Your task to perform on an android device: Go to internet settings Image 0: 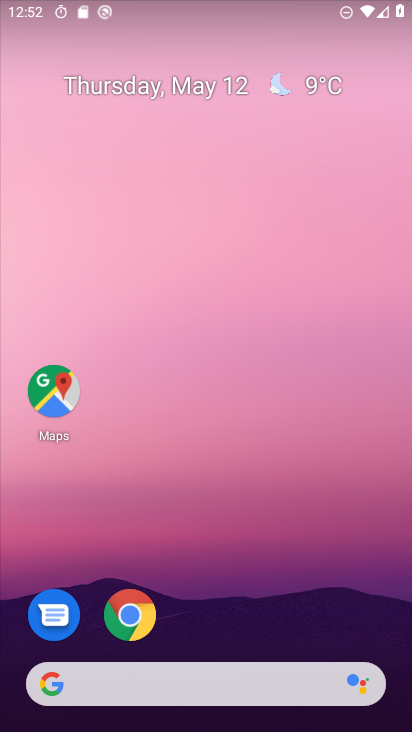
Step 0: drag from (255, 441) to (238, 81)
Your task to perform on an android device: Go to internet settings Image 1: 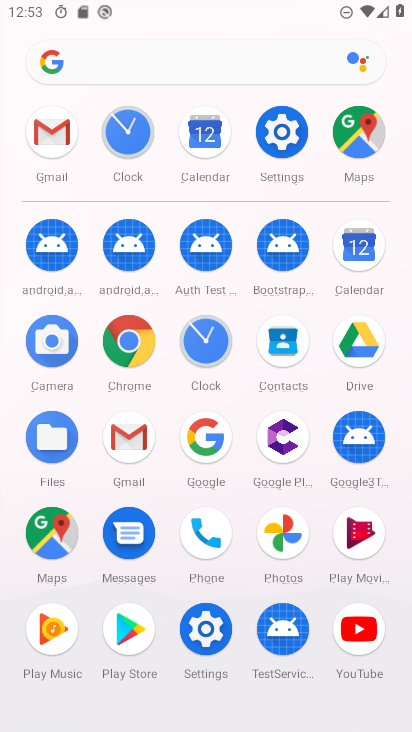
Step 1: click (268, 121)
Your task to perform on an android device: Go to internet settings Image 2: 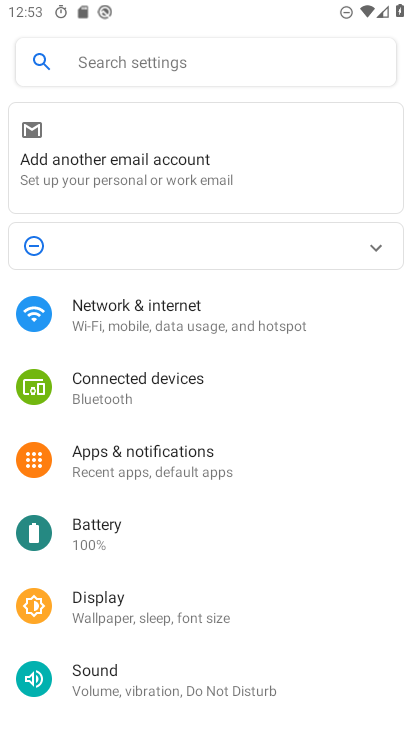
Step 2: click (159, 324)
Your task to perform on an android device: Go to internet settings Image 3: 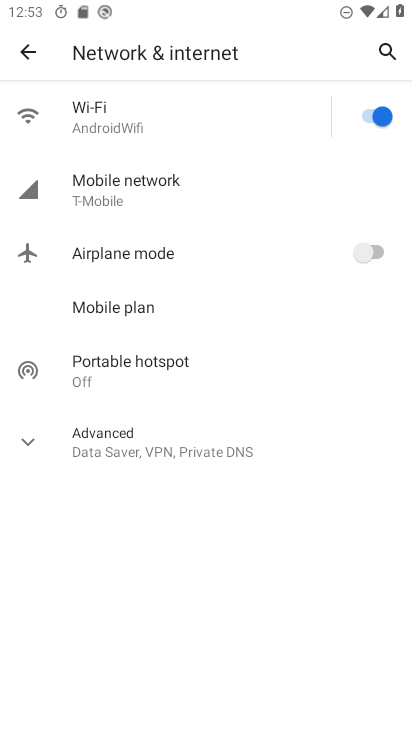
Step 3: task complete